Your task to perform on an android device: What's the weather? Image 0: 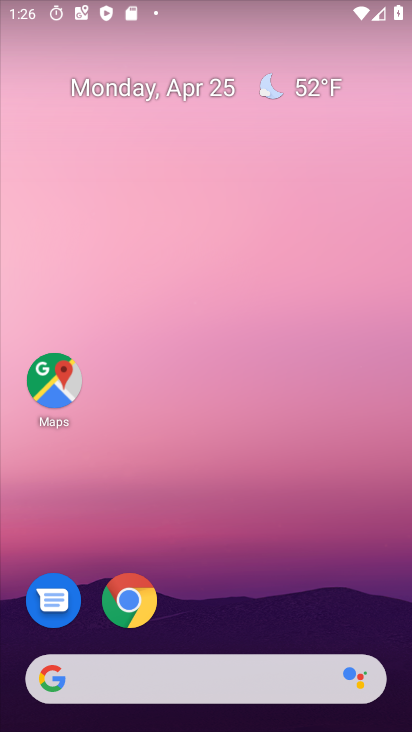
Step 0: click (314, 91)
Your task to perform on an android device: What's the weather? Image 1: 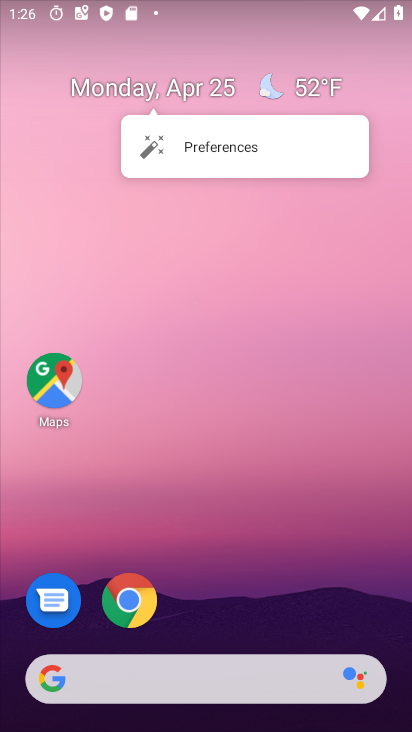
Step 1: click (310, 81)
Your task to perform on an android device: What's the weather? Image 2: 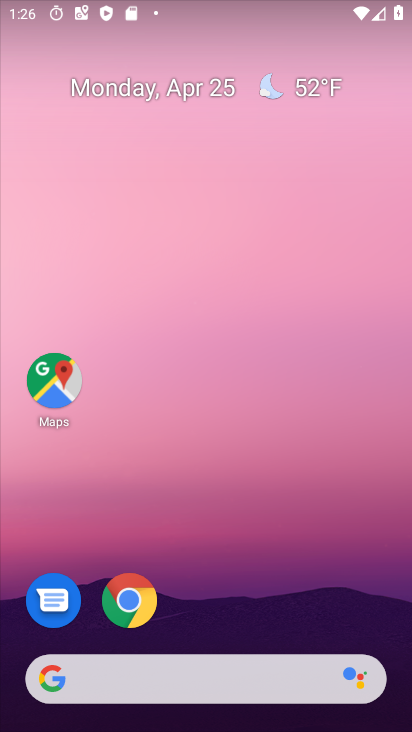
Step 2: click (309, 86)
Your task to perform on an android device: What's the weather? Image 3: 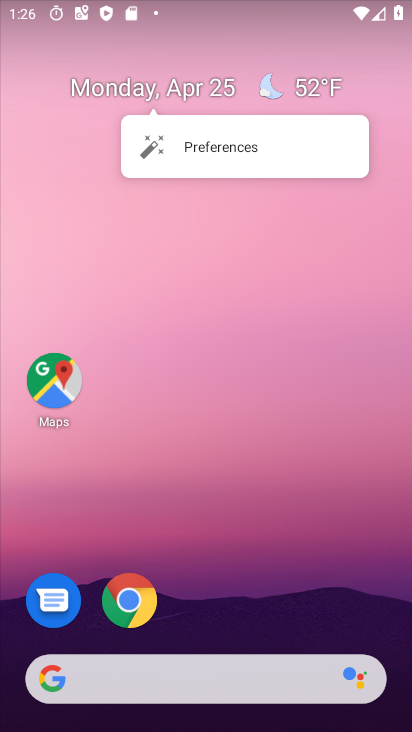
Step 3: click (315, 90)
Your task to perform on an android device: What's the weather? Image 4: 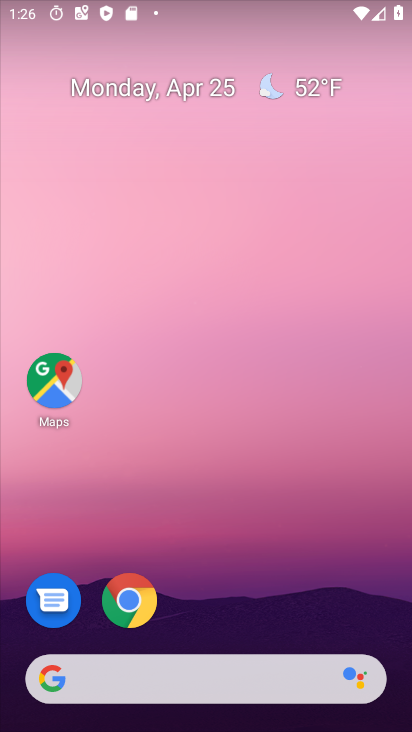
Step 4: click (304, 93)
Your task to perform on an android device: What's the weather? Image 5: 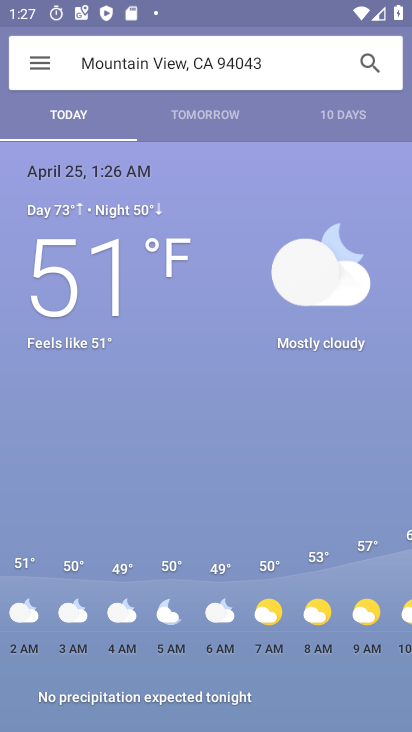
Step 5: task complete